Your task to perform on an android device: Check the news Image 0: 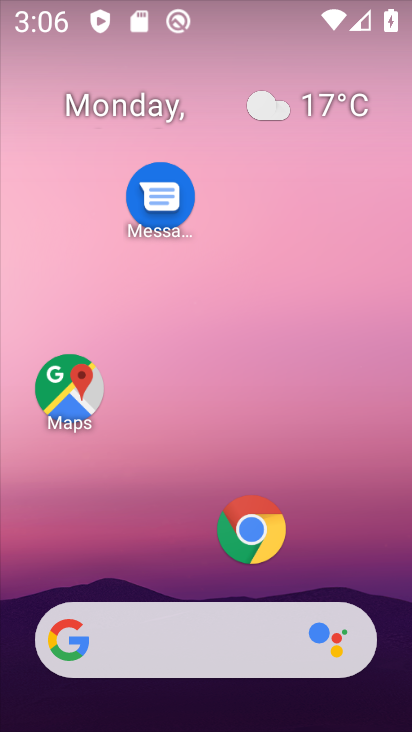
Step 0: drag from (9, 270) to (386, 307)
Your task to perform on an android device: Check the news Image 1: 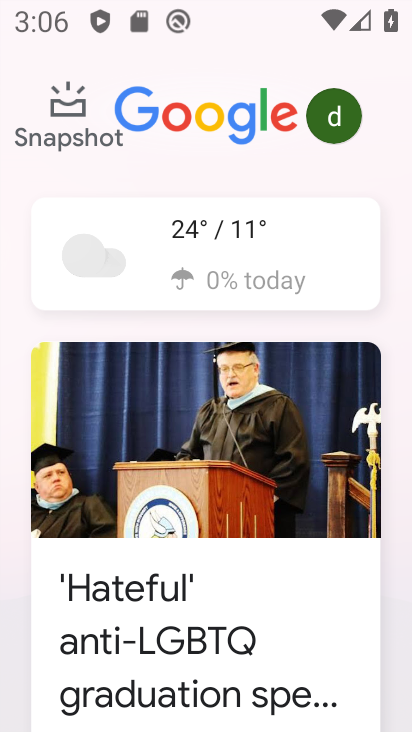
Step 1: drag from (244, 627) to (277, 216)
Your task to perform on an android device: Check the news Image 2: 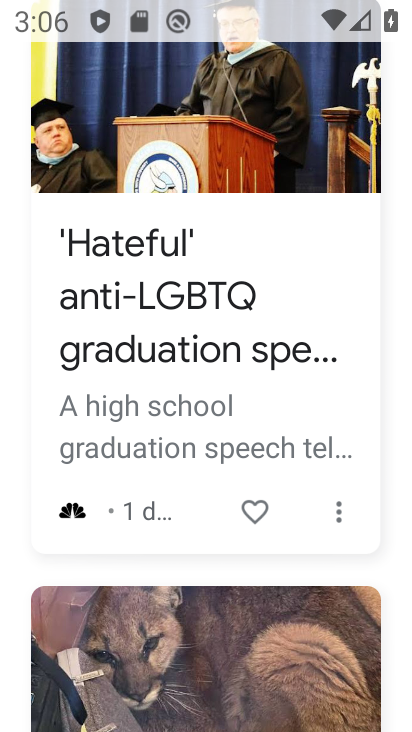
Step 2: drag from (216, 540) to (271, 220)
Your task to perform on an android device: Check the news Image 3: 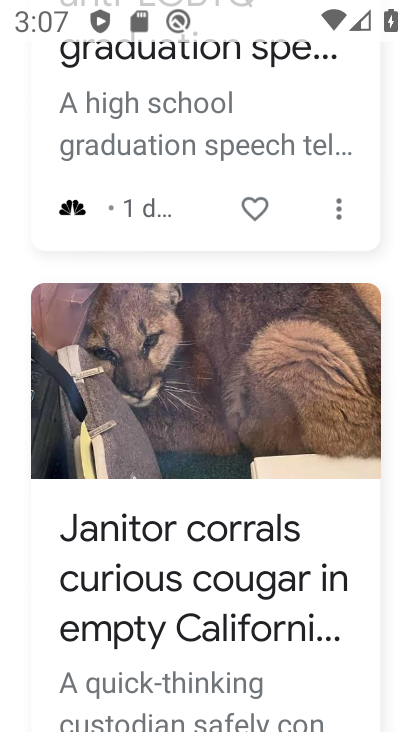
Step 3: drag from (215, 583) to (261, 293)
Your task to perform on an android device: Check the news Image 4: 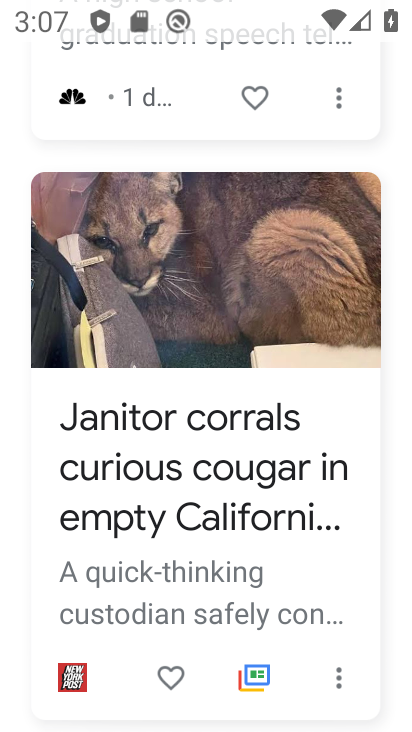
Step 4: click (272, 233)
Your task to perform on an android device: Check the news Image 5: 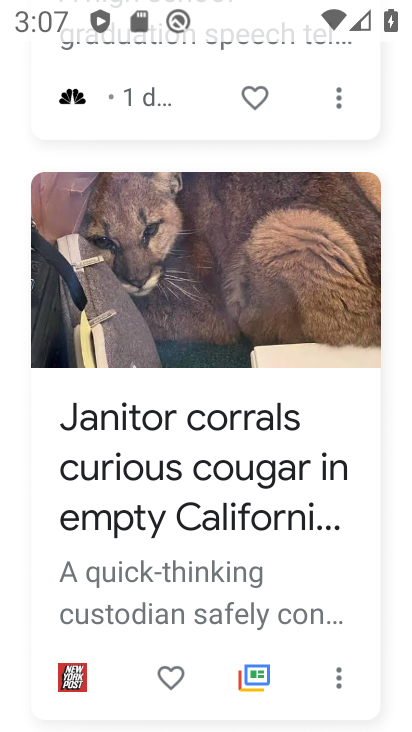
Step 5: task complete